Your task to perform on an android device: check the backup settings in the google photos Image 0: 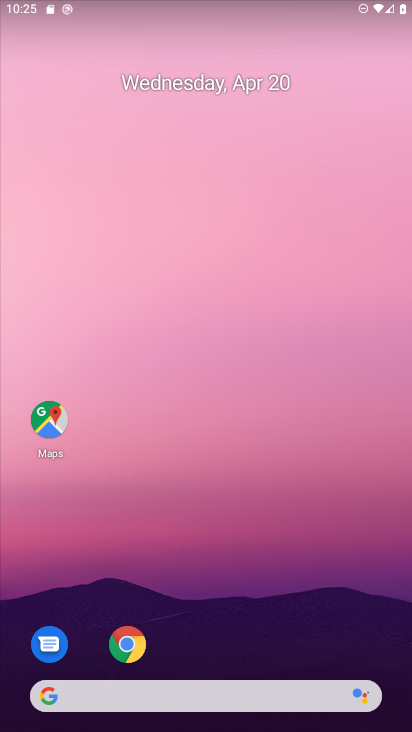
Step 0: drag from (310, 631) to (184, 24)
Your task to perform on an android device: check the backup settings in the google photos Image 1: 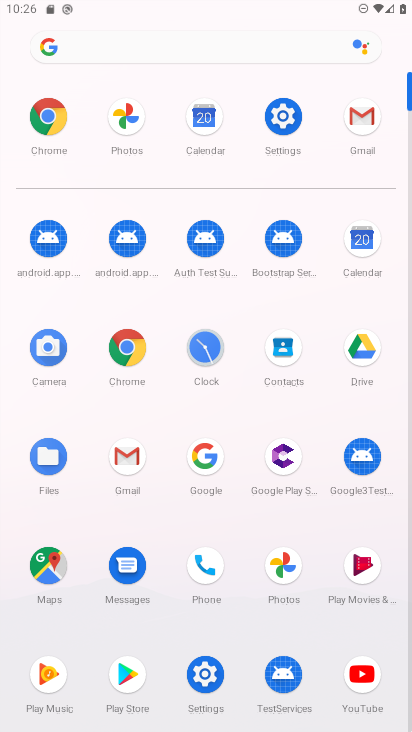
Step 1: click (288, 565)
Your task to perform on an android device: check the backup settings in the google photos Image 2: 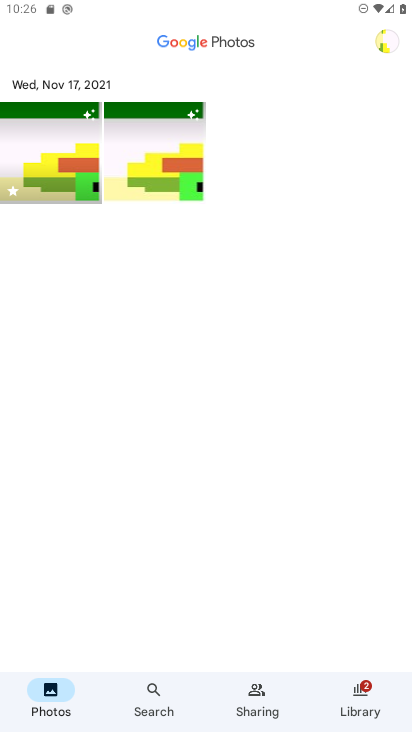
Step 2: click (393, 46)
Your task to perform on an android device: check the backup settings in the google photos Image 3: 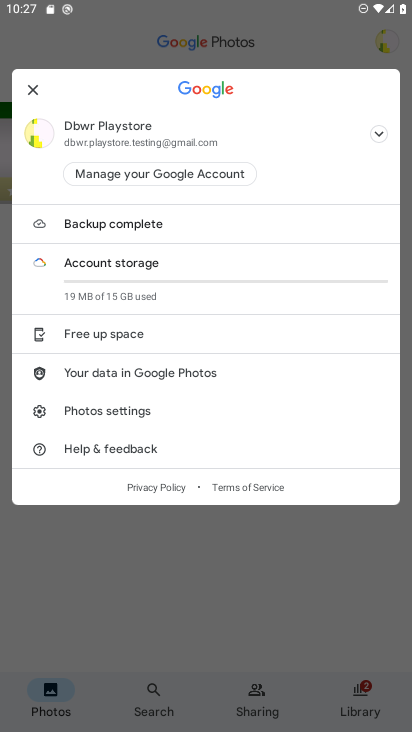
Step 3: click (384, 33)
Your task to perform on an android device: check the backup settings in the google photos Image 4: 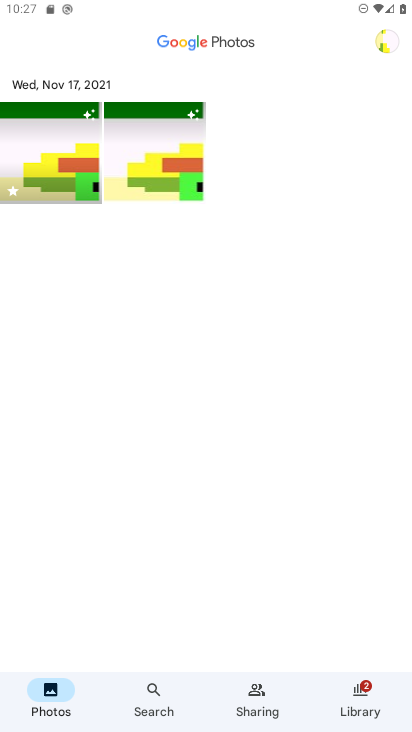
Step 4: click (384, 33)
Your task to perform on an android device: check the backup settings in the google photos Image 5: 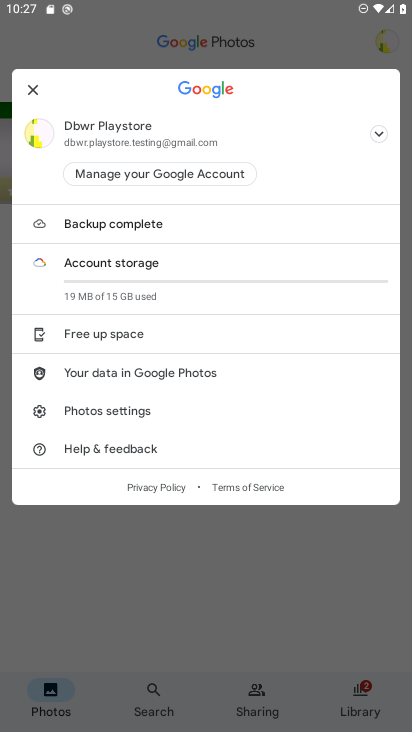
Step 5: click (144, 234)
Your task to perform on an android device: check the backup settings in the google photos Image 6: 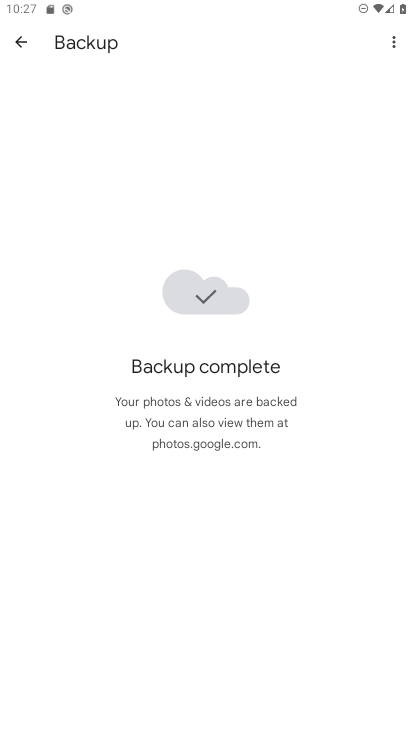
Step 6: task complete